Your task to perform on an android device: clear all cookies in the chrome app Image 0: 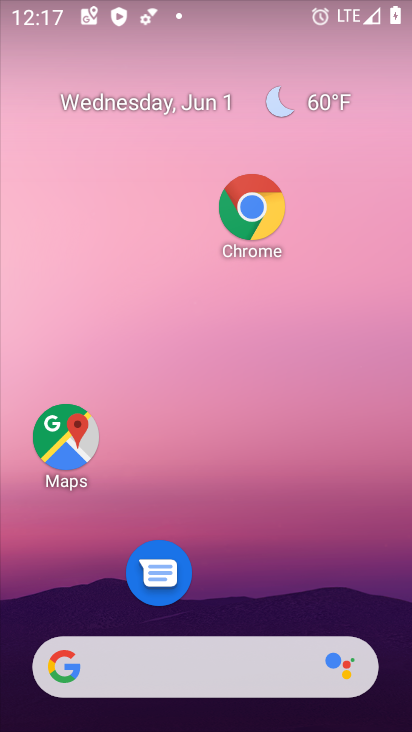
Step 0: click (252, 240)
Your task to perform on an android device: clear all cookies in the chrome app Image 1: 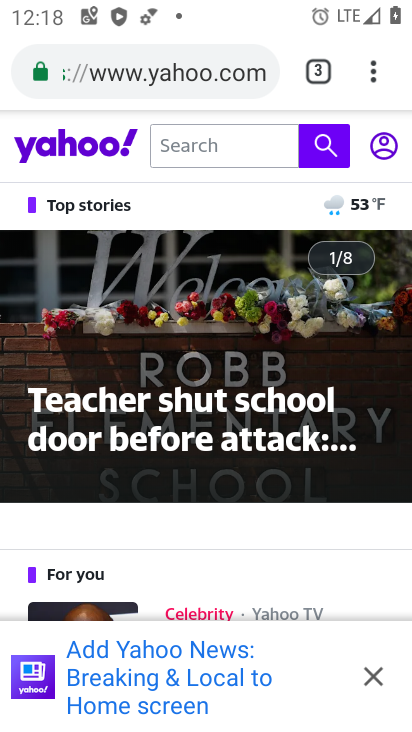
Step 1: drag from (362, 75) to (167, 399)
Your task to perform on an android device: clear all cookies in the chrome app Image 2: 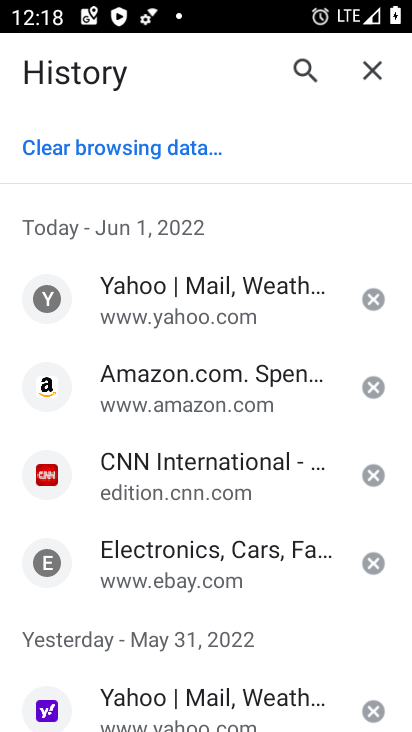
Step 2: click (128, 158)
Your task to perform on an android device: clear all cookies in the chrome app Image 3: 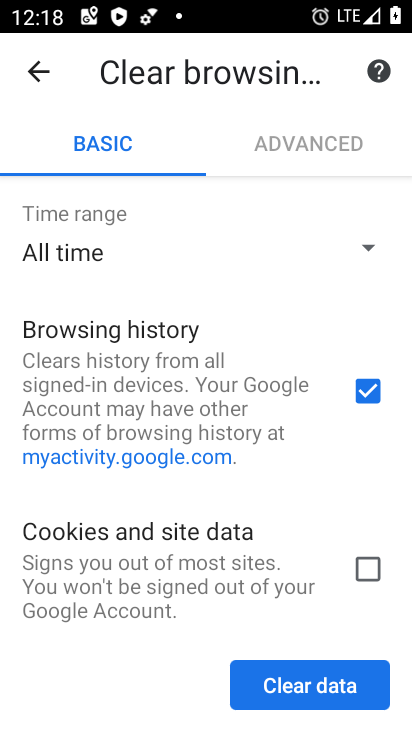
Step 3: click (297, 675)
Your task to perform on an android device: clear all cookies in the chrome app Image 4: 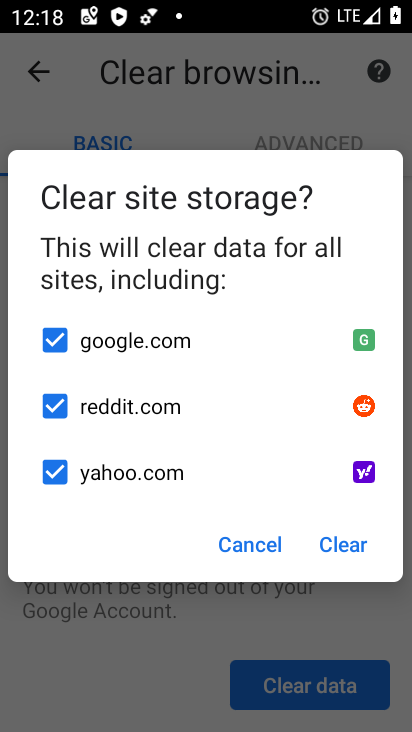
Step 4: click (332, 553)
Your task to perform on an android device: clear all cookies in the chrome app Image 5: 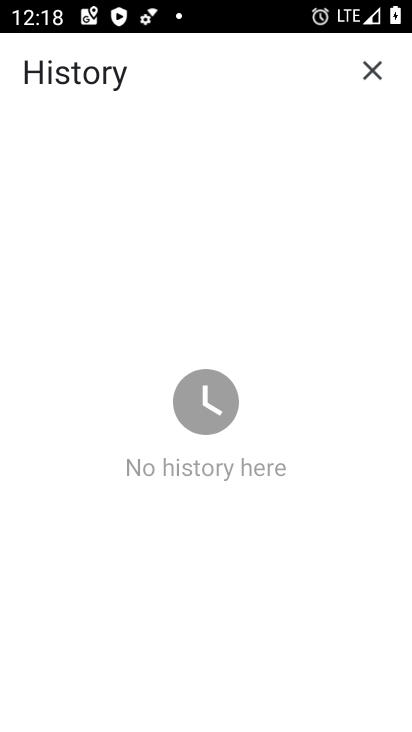
Step 5: task complete